Your task to perform on an android device: turn off airplane mode Image 0: 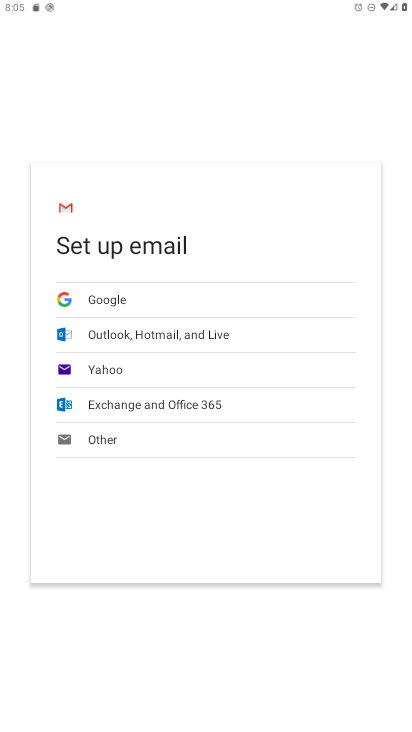
Step 0: press home button
Your task to perform on an android device: turn off airplane mode Image 1: 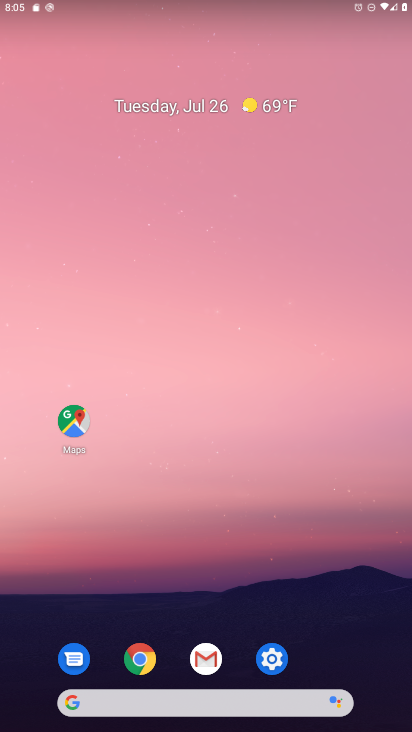
Step 1: click (262, 657)
Your task to perform on an android device: turn off airplane mode Image 2: 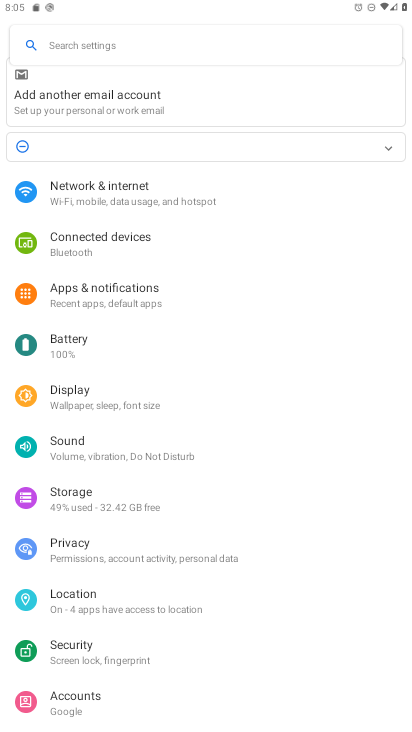
Step 2: click (142, 191)
Your task to perform on an android device: turn off airplane mode Image 3: 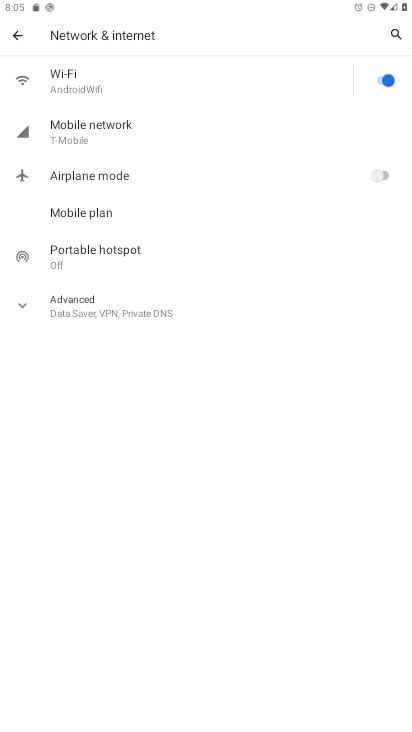
Step 3: click (219, 186)
Your task to perform on an android device: turn off airplane mode Image 4: 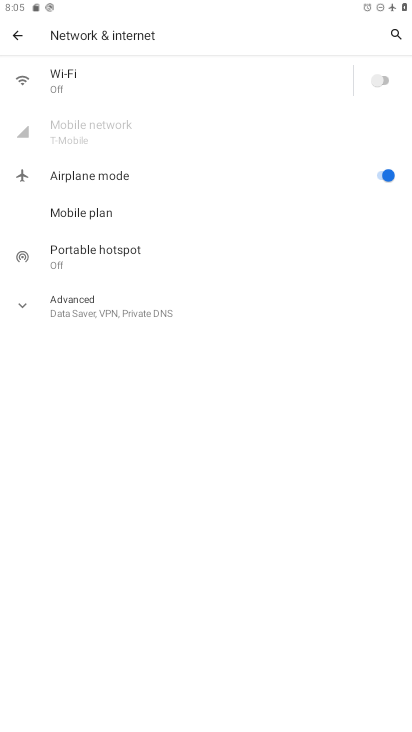
Step 4: click (236, 170)
Your task to perform on an android device: turn off airplane mode Image 5: 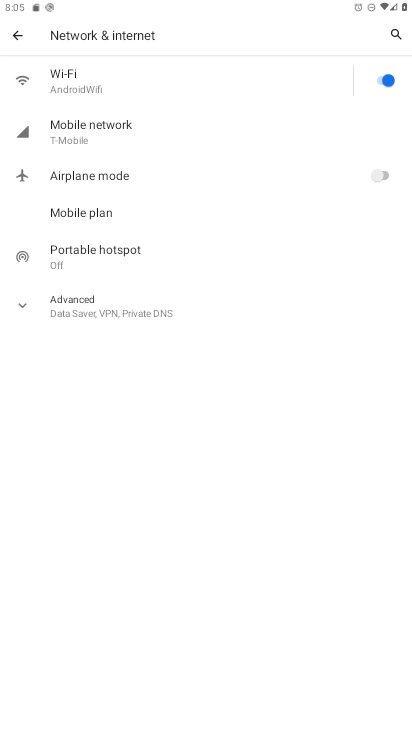
Step 5: task complete